Your task to perform on an android device: turn on wifi Image 0: 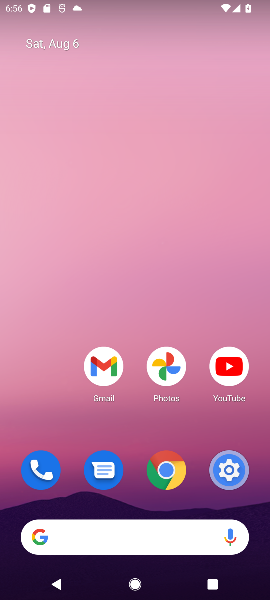
Step 0: press home button
Your task to perform on an android device: turn on wifi Image 1: 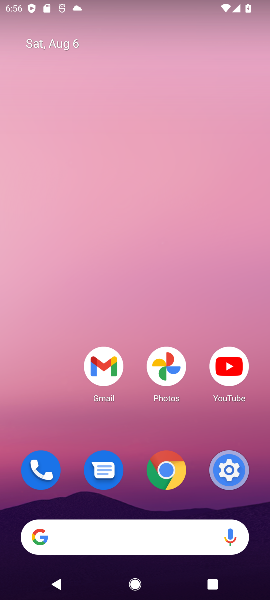
Step 1: drag from (161, 442) to (102, 129)
Your task to perform on an android device: turn on wifi Image 2: 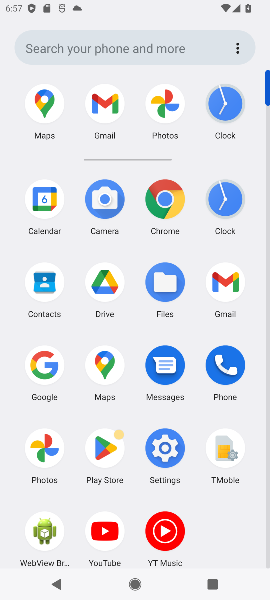
Step 2: drag from (231, 2) to (255, 357)
Your task to perform on an android device: turn on wifi Image 3: 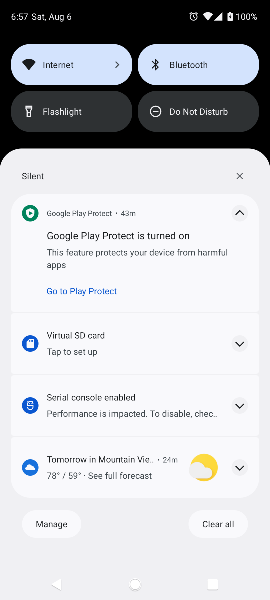
Step 3: click (119, 61)
Your task to perform on an android device: turn on wifi Image 4: 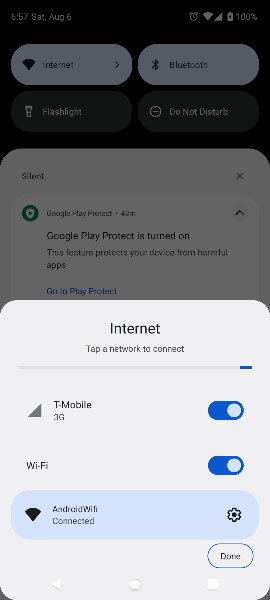
Step 4: click (51, 68)
Your task to perform on an android device: turn on wifi Image 5: 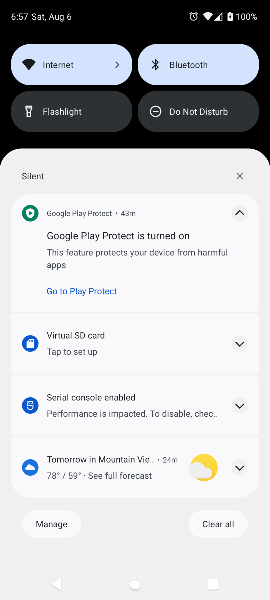
Step 5: click (51, 68)
Your task to perform on an android device: turn on wifi Image 6: 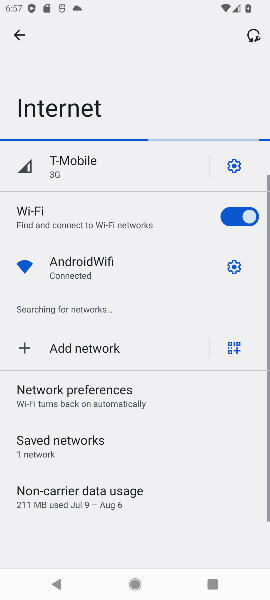
Step 6: click (234, 220)
Your task to perform on an android device: turn on wifi Image 7: 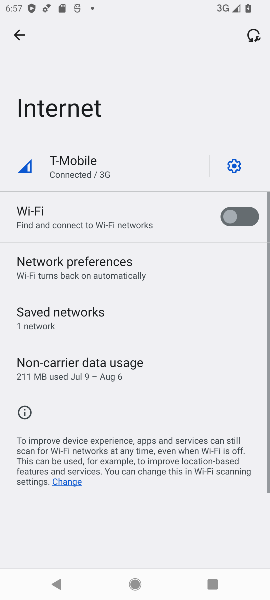
Step 7: task complete